Your task to perform on an android device: turn on wifi Image 0: 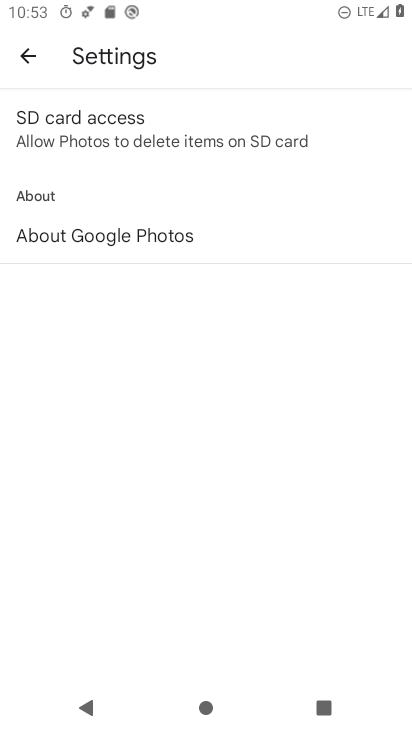
Step 0: press home button
Your task to perform on an android device: turn on wifi Image 1: 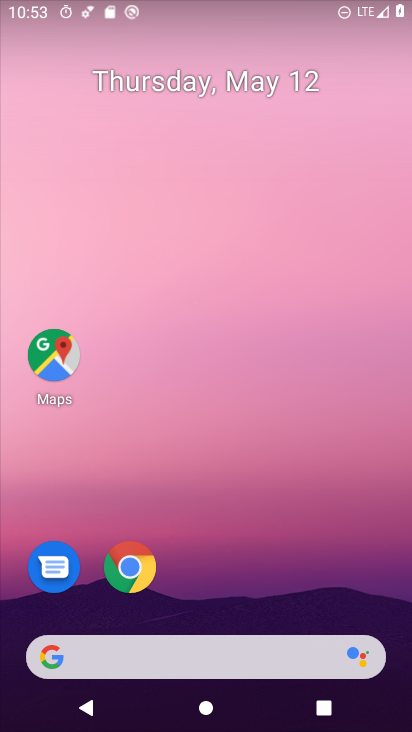
Step 1: drag from (271, 481) to (352, 25)
Your task to perform on an android device: turn on wifi Image 2: 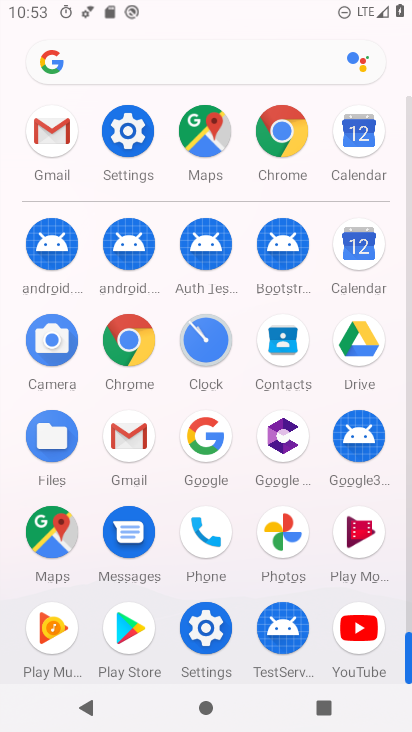
Step 2: click (110, 144)
Your task to perform on an android device: turn on wifi Image 3: 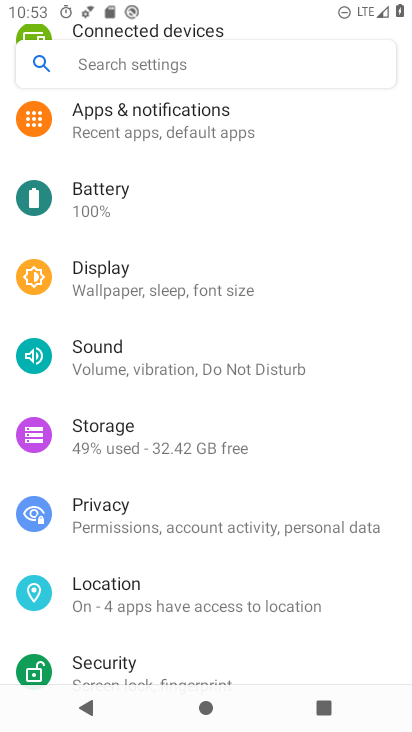
Step 3: drag from (153, 357) to (130, 481)
Your task to perform on an android device: turn on wifi Image 4: 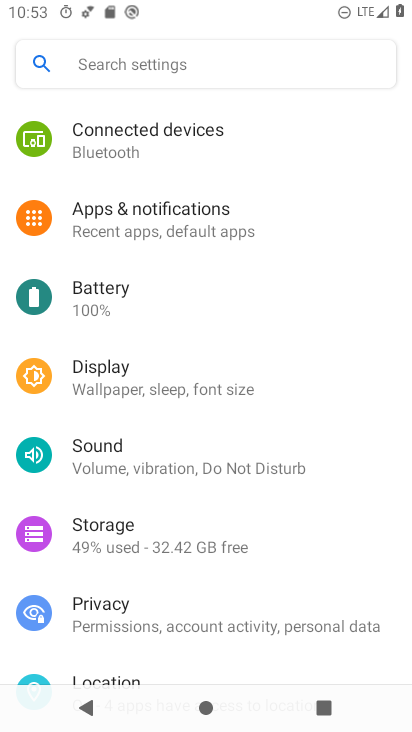
Step 4: click (58, 718)
Your task to perform on an android device: turn on wifi Image 5: 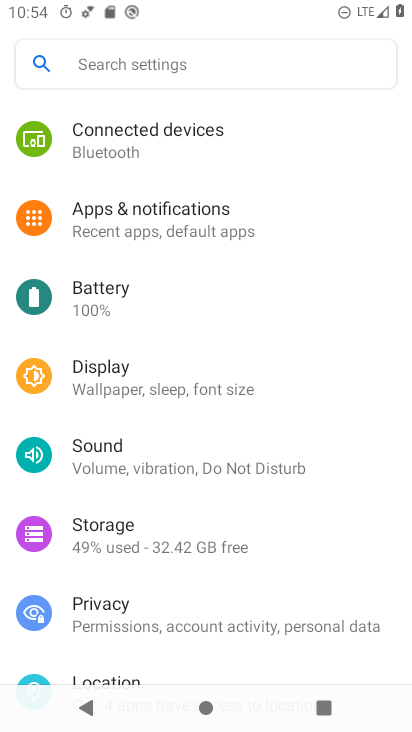
Step 5: drag from (211, 322) to (150, 728)
Your task to perform on an android device: turn on wifi Image 6: 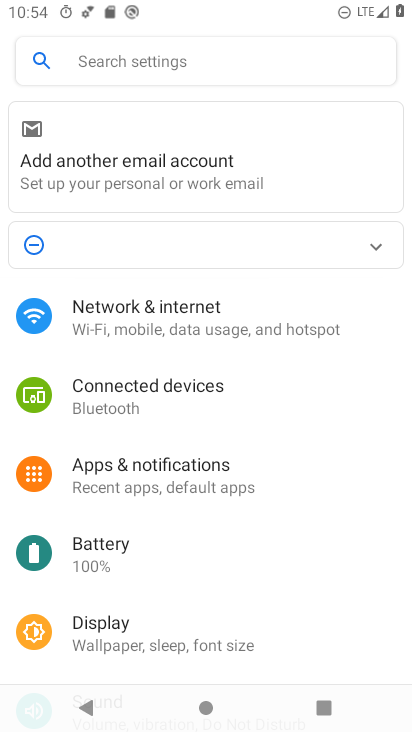
Step 6: drag from (236, 191) to (170, 514)
Your task to perform on an android device: turn on wifi Image 7: 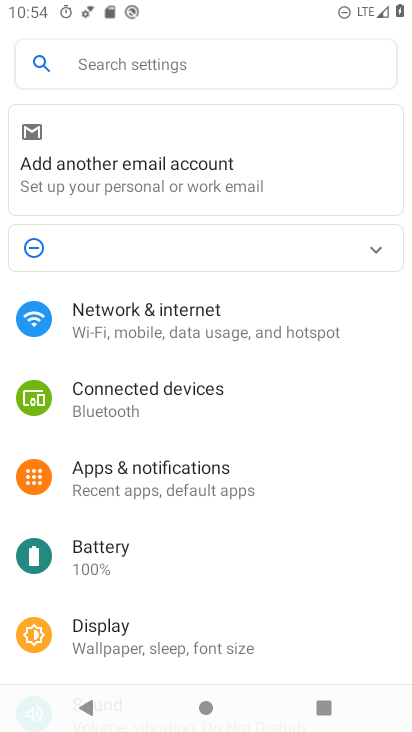
Step 7: click (221, 343)
Your task to perform on an android device: turn on wifi Image 8: 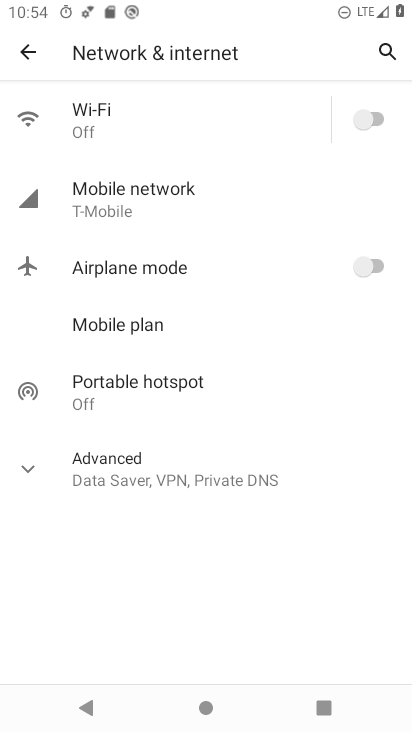
Step 8: click (373, 126)
Your task to perform on an android device: turn on wifi Image 9: 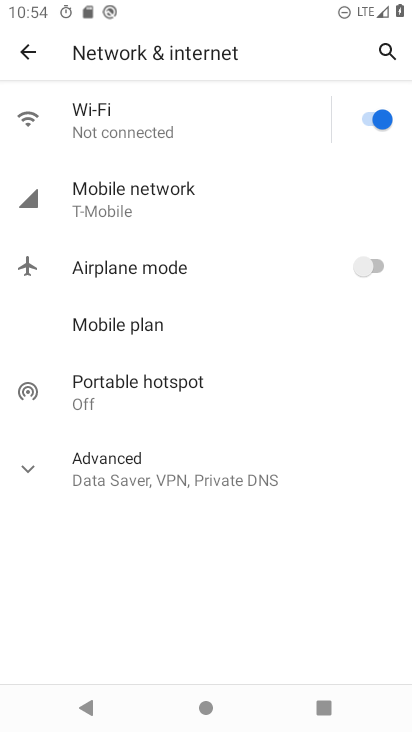
Step 9: task complete